Your task to perform on an android device: What's the weather? Image 0: 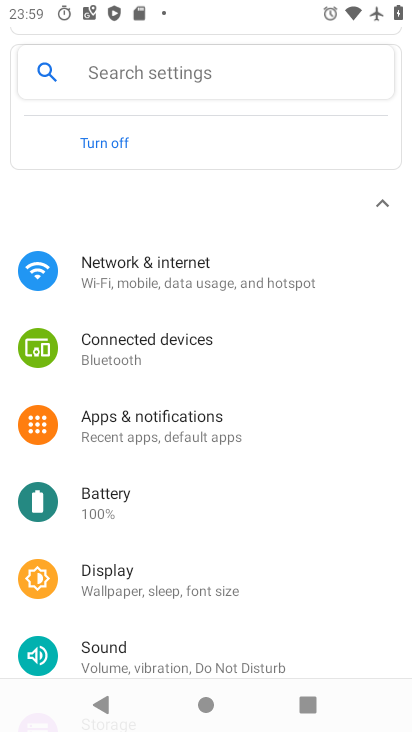
Step 0: press back button
Your task to perform on an android device: What's the weather? Image 1: 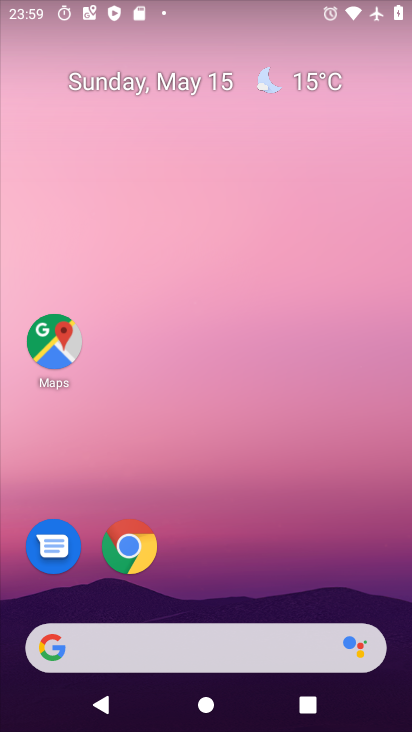
Step 1: drag from (236, 717) to (176, 321)
Your task to perform on an android device: What's the weather? Image 2: 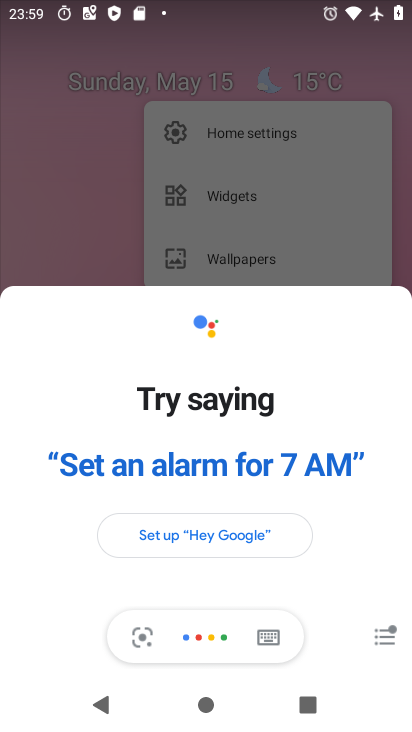
Step 2: click (247, 407)
Your task to perform on an android device: What's the weather? Image 3: 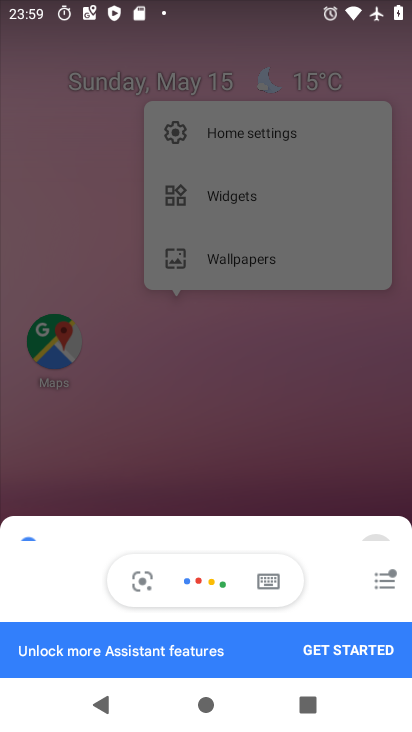
Step 3: click (77, 219)
Your task to perform on an android device: What's the weather? Image 4: 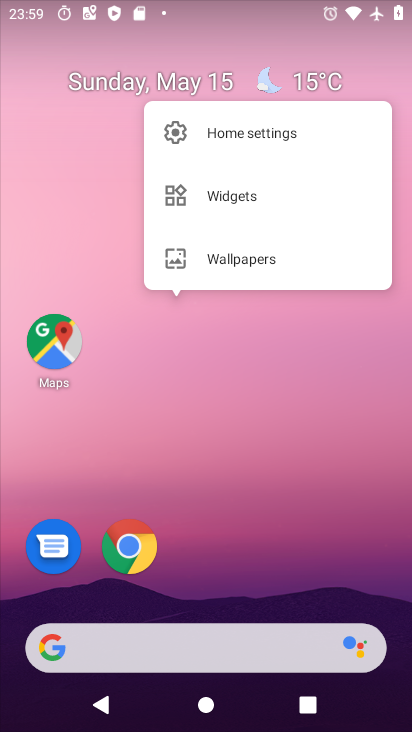
Step 4: drag from (275, 626) to (57, 208)
Your task to perform on an android device: What's the weather? Image 5: 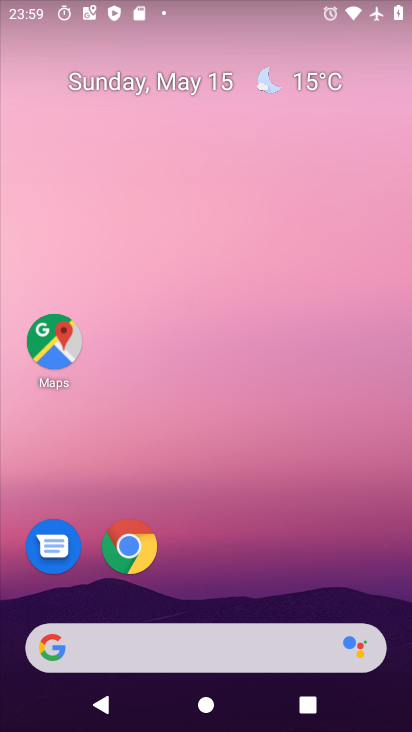
Step 5: drag from (241, 681) to (170, 139)
Your task to perform on an android device: What's the weather? Image 6: 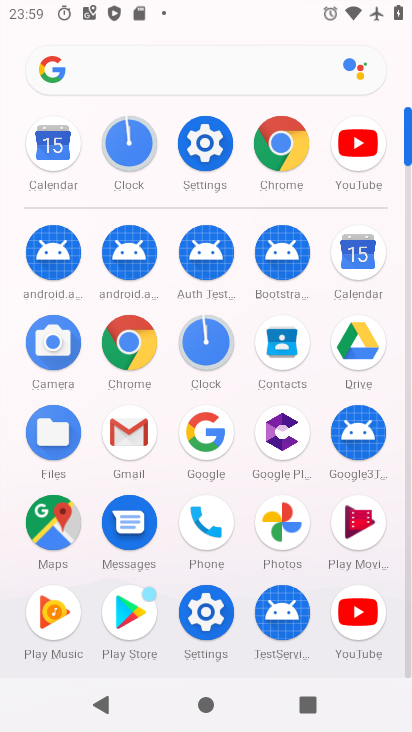
Step 6: press back button
Your task to perform on an android device: What's the weather? Image 7: 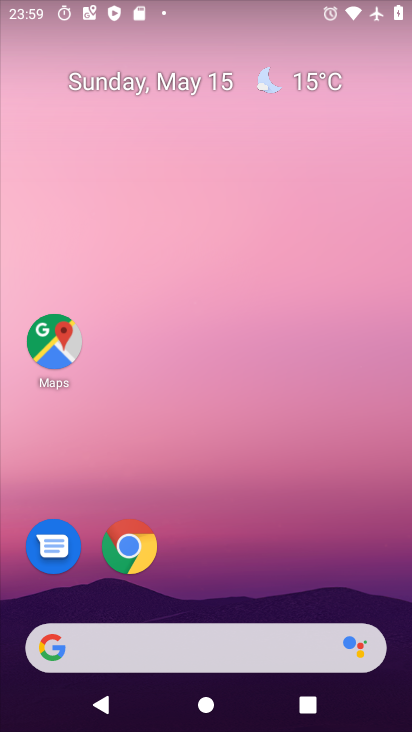
Step 7: drag from (13, 111) to (409, 232)
Your task to perform on an android device: What's the weather? Image 8: 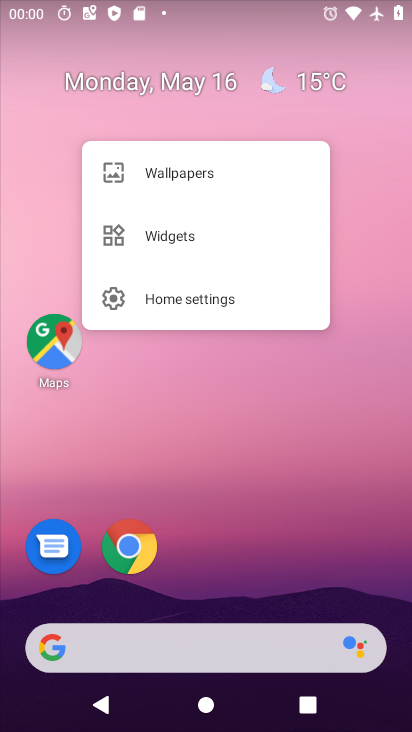
Step 8: click (16, 141)
Your task to perform on an android device: What's the weather? Image 9: 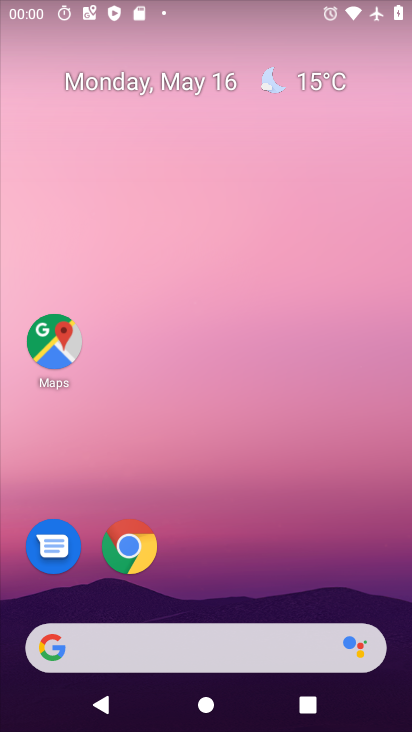
Step 9: drag from (13, 136) to (284, 453)
Your task to perform on an android device: What's the weather? Image 10: 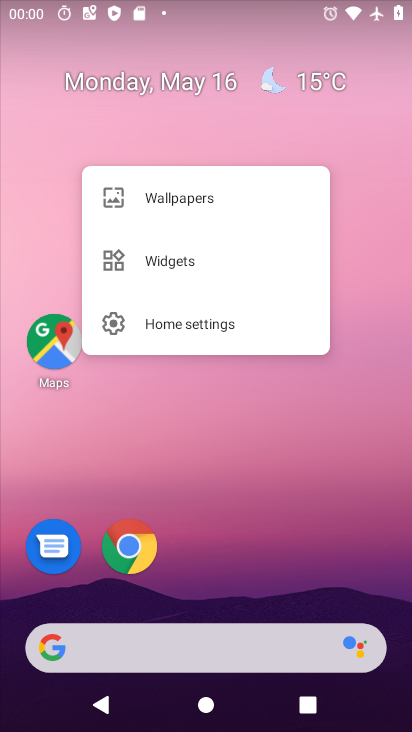
Step 10: drag from (45, 177) to (392, 387)
Your task to perform on an android device: What's the weather? Image 11: 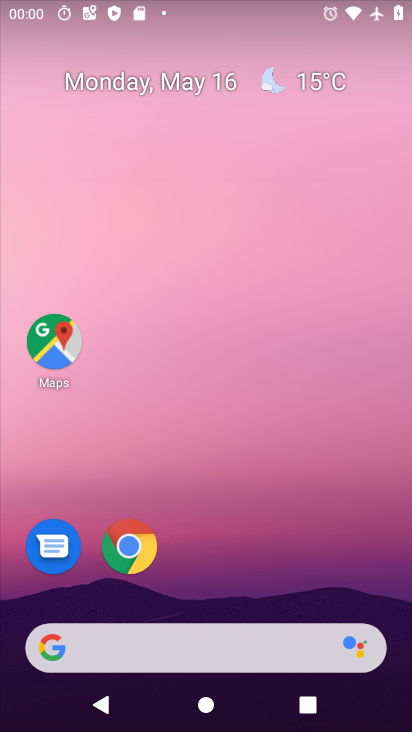
Step 11: drag from (19, 123) to (410, 461)
Your task to perform on an android device: What's the weather? Image 12: 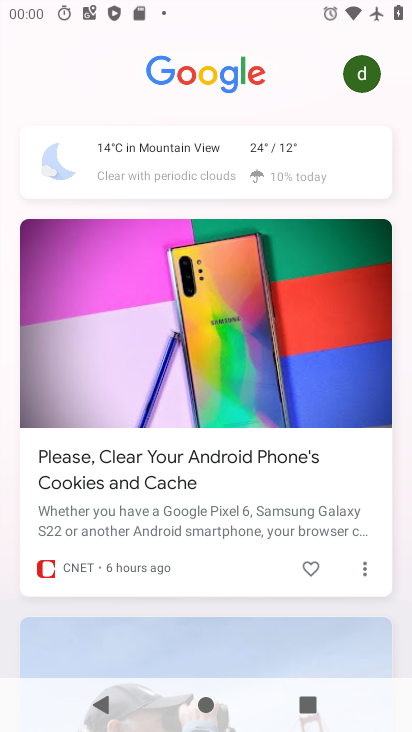
Step 12: click (185, 165)
Your task to perform on an android device: What's the weather? Image 13: 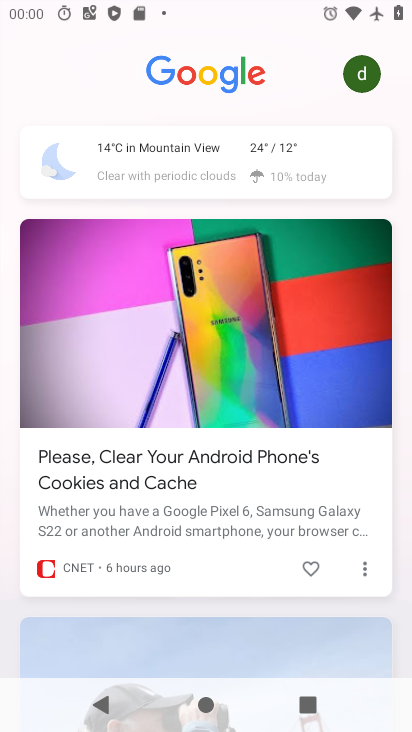
Step 13: click (185, 165)
Your task to perform on an android device: What's the weather? Image 14: 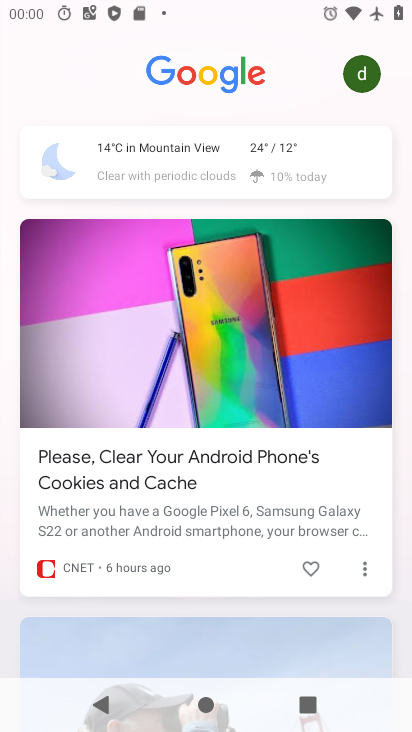
Step 14: click (186, 164)
Your task to perform on an android device: What's the weather? Image 15: 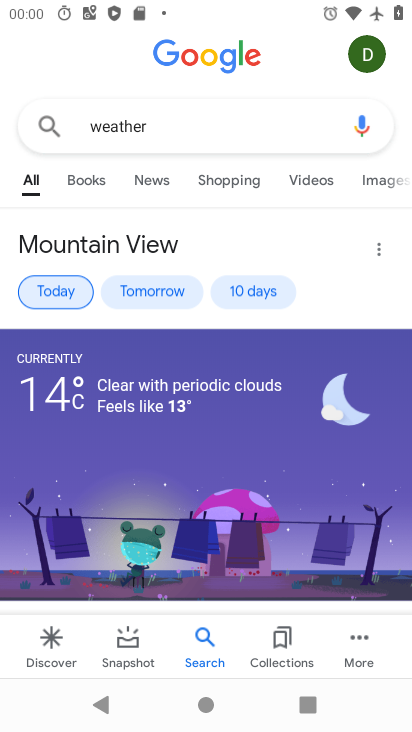
Step 15: drag from (178, 486) to (152, 296)
Your task to perform on an android device: What's the weather? Image 16: 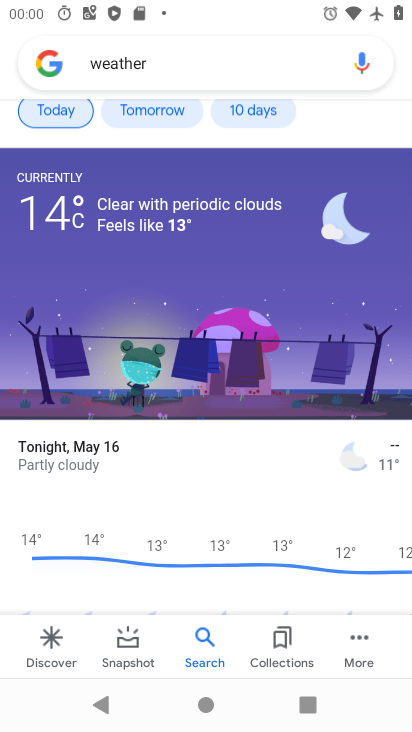
Step 16: drag from (221, 545) to (206, 206)
Your task to perform on an android device: What's the weather? Image 17: 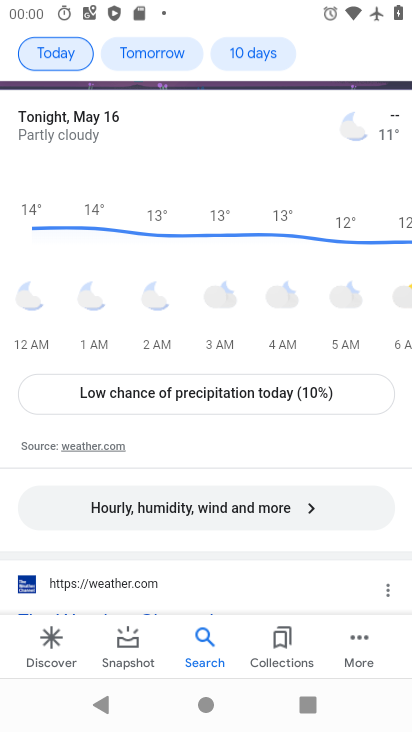
Step 17: drag from (250, 402) to (311, 42)
Your task to perform on an android device: What's the weather? Image 18: 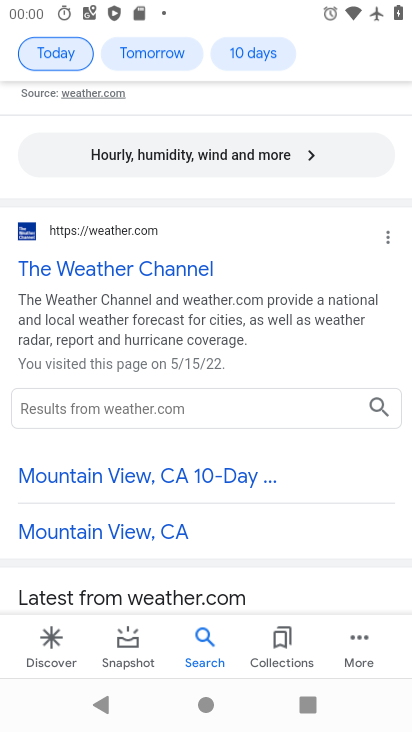
Step 18: click (232, 194)
Your task to perform on an android device: What's the weather? Image 19: 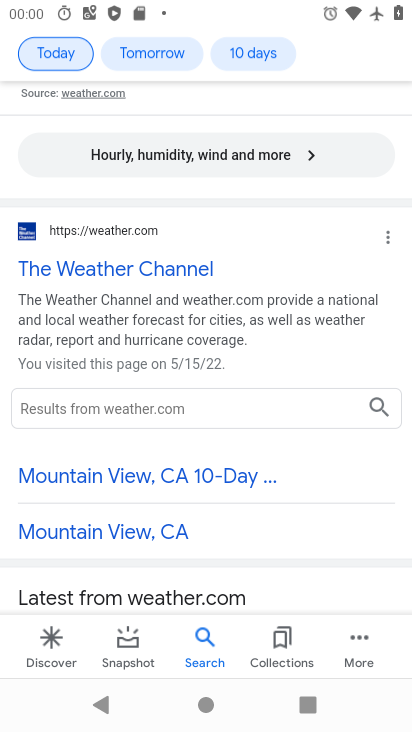
Step 19: task complete